Your task to perform on an android device: create a new album in the google photos Image 0: 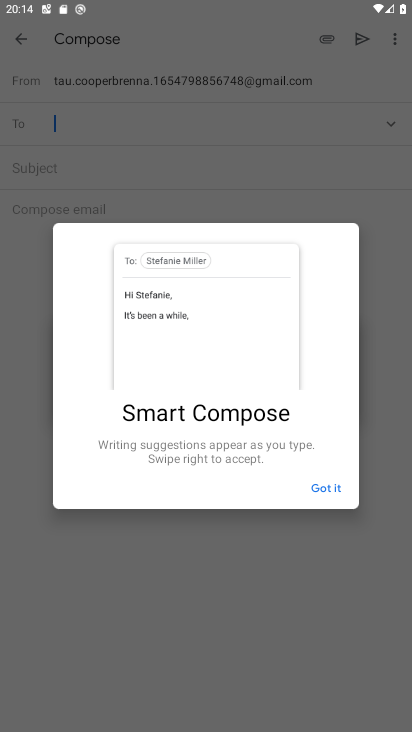
Step 0: press home button
Your task to perform on an android device: create a new album in the google photos Image 1: 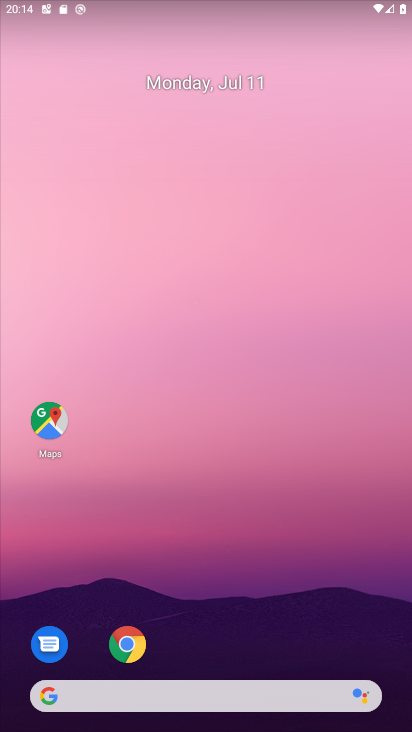
Step 1: drag from (258, 663) to (213, 116)
Your task to perform on an android device: create a new album in the google photos Image 2: 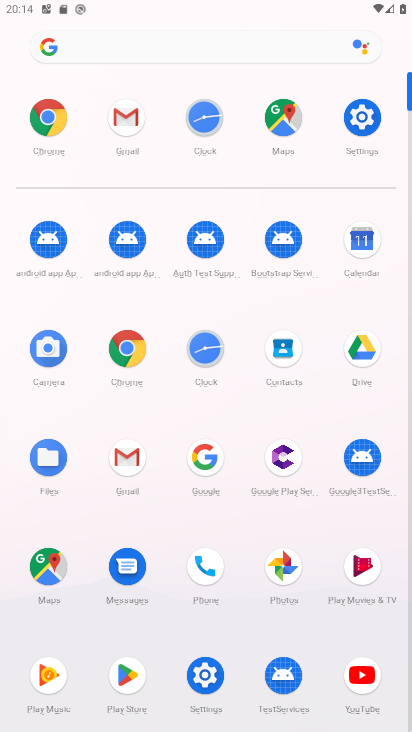
Step 2: click (282, 573)
Your task to perform on an android device: create a new album in the google photos Image 3: 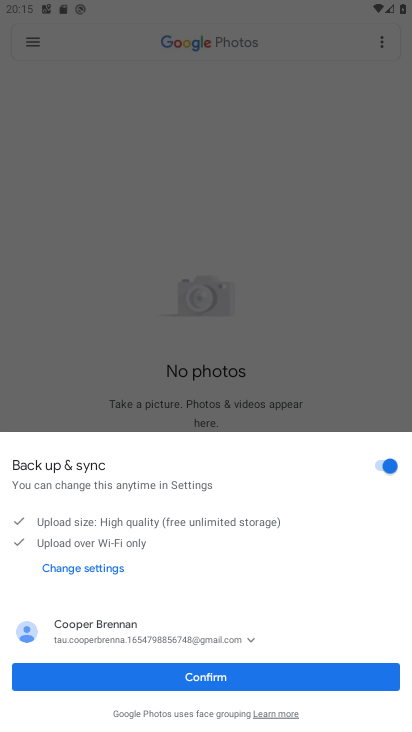
Step 3: click (290, 666)
Your task to perform on an android device: create a new album in the google photos Image 4: 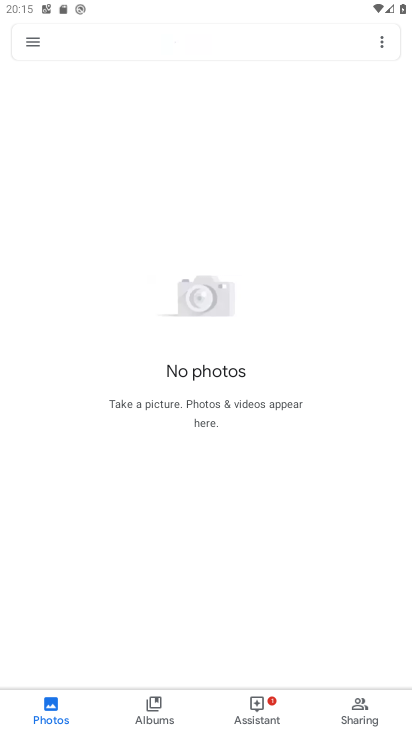
Step 4: click (140, 688)
Your task to perform on an android device: create a new album in the google photos Image 5: 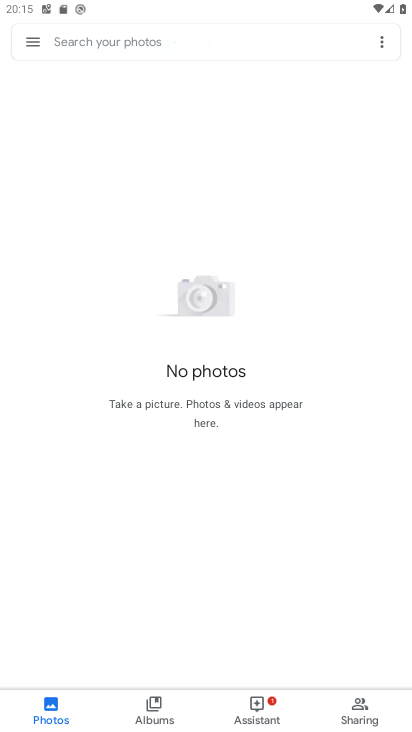
Step 5: click (154, 704)
Your task to perform on an android device: create a new album in the google photos Image 6: 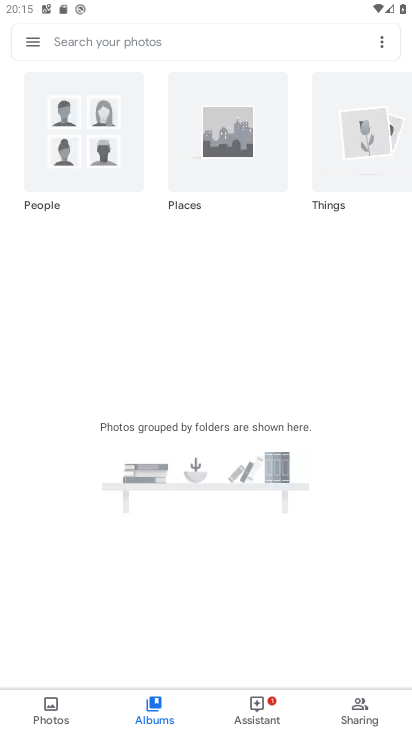
Step 6: task complete